Your task to perform on an android device: Play the last video I watched on Youtube Image 0: 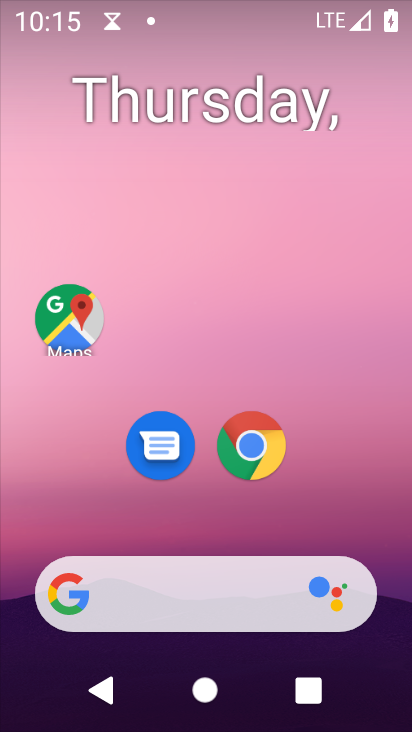
Step 0: drag from (393, 587) to (341, 111)
Your task to perform on an android device: Play the last video I watched on Youtube Image 1: 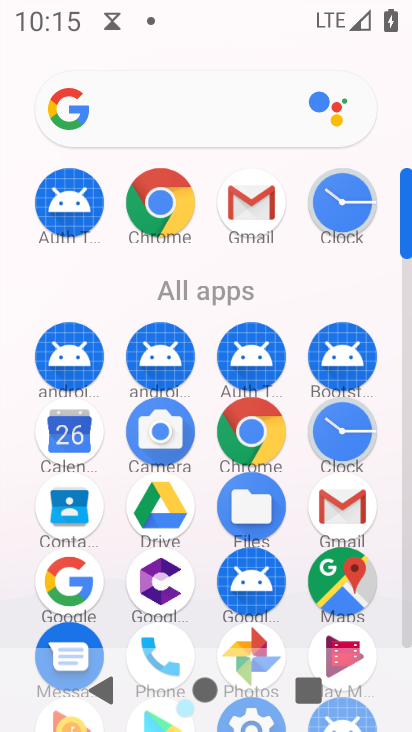
Step 1: click (408, 637)
Your task to perform on an android device: Play the last video I watched on Youtube Image 2: 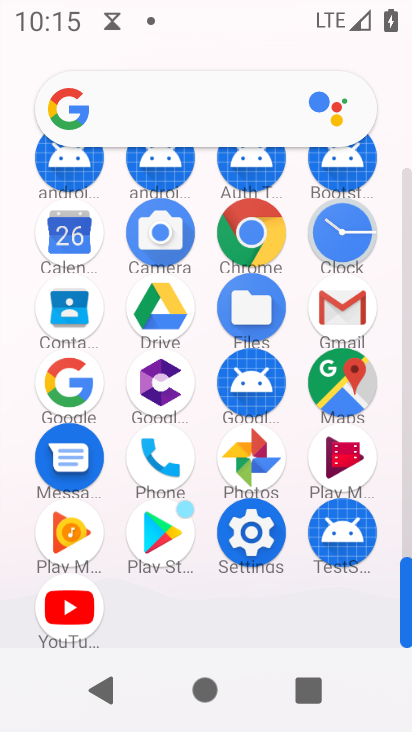
Step 2: click (65, 619)
Your task to perform on an android device: Play the last video I watched on Youtube Image 3: 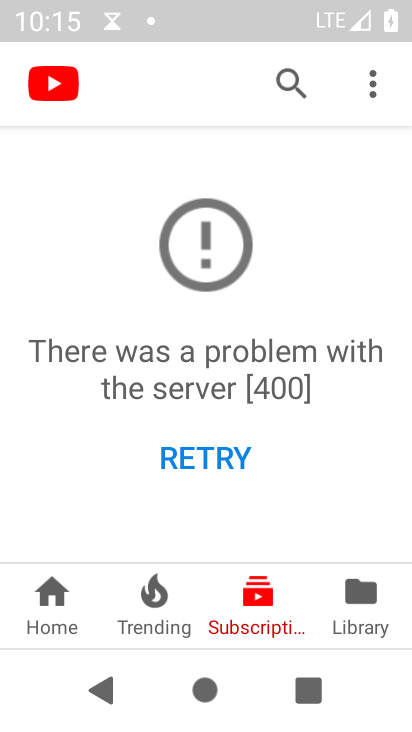
Step 3: click (366, 609)
Your task to perform on an android device: Play the last video I watched on Youtube Image 4: 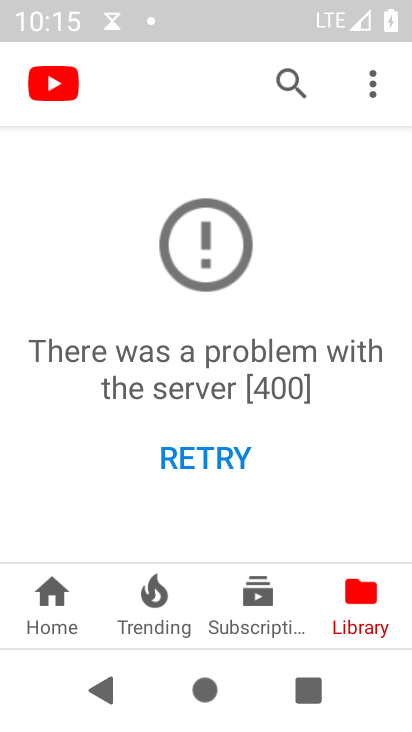
Step 4: task complete